Your task to perform on an android device: turn off smart reply in the gmail app Image 0: 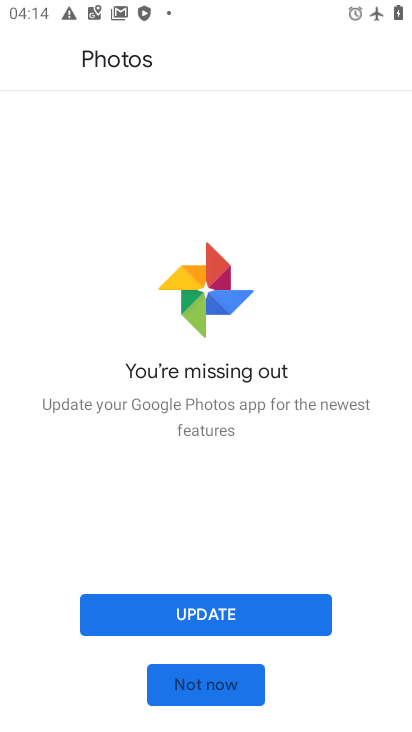
Step 0: press home button
Your task to perform on an android device: turn off smart reply in the gmail app Image 1: 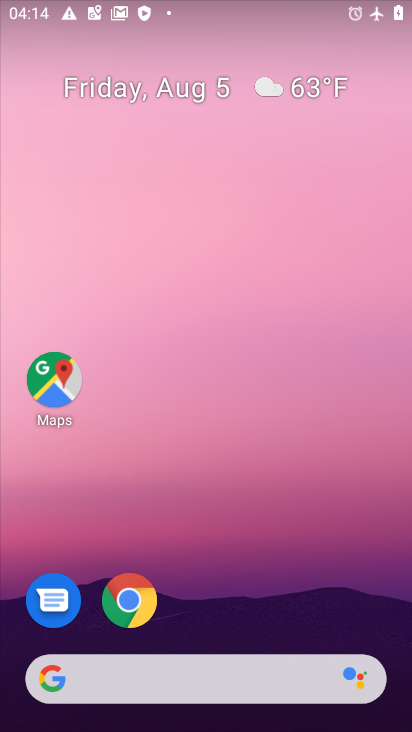
Step 1: drag from (196, 685) to (163, 165)
Your task to perform on an android device: turn off smart reply in the gmail app Image 2: 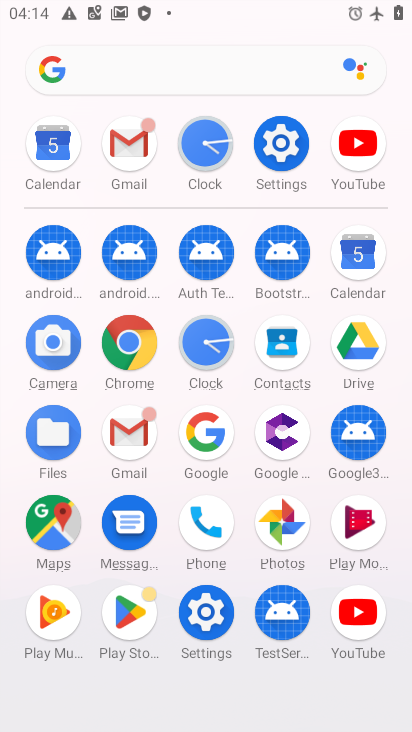
Step 2: click (126, 145)
Your task to perform on an android device: turn off smart reply in the gmail app Image 3: 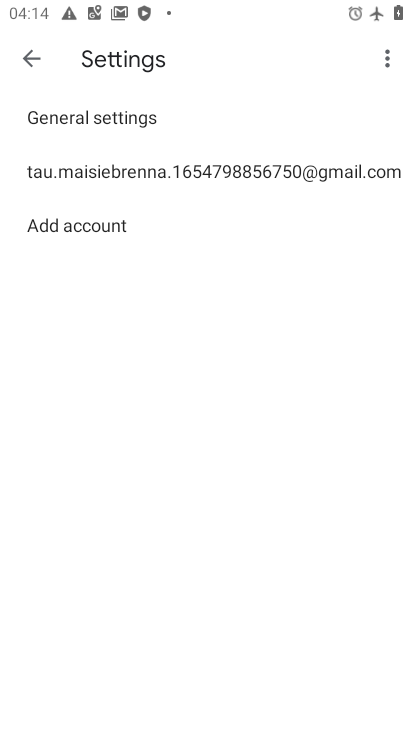
Step 3: click (132, 171)
Your task to perform on an android device: turn off smart reply in the gmail app Image 4: 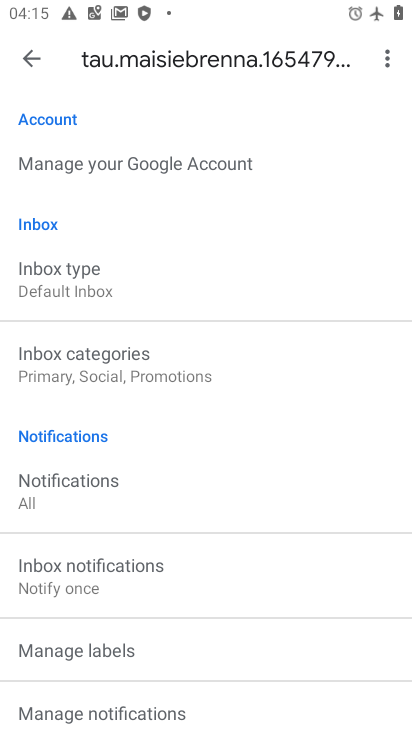
Step 4: drag from (161, 548) to (152, 248)
Your task to perform on an android device: turn off smart reply in the gmail app Image 5: 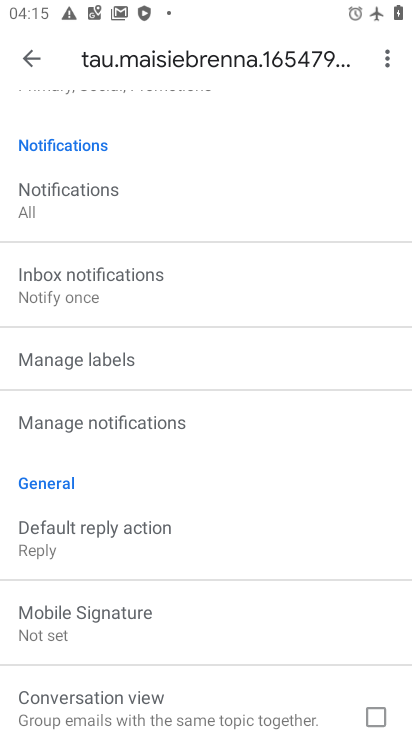
Step 5: drag from (136, 665) to (156, 508)
Your task to perform on an android device: turn off smart reply in the gmail app Image 6: 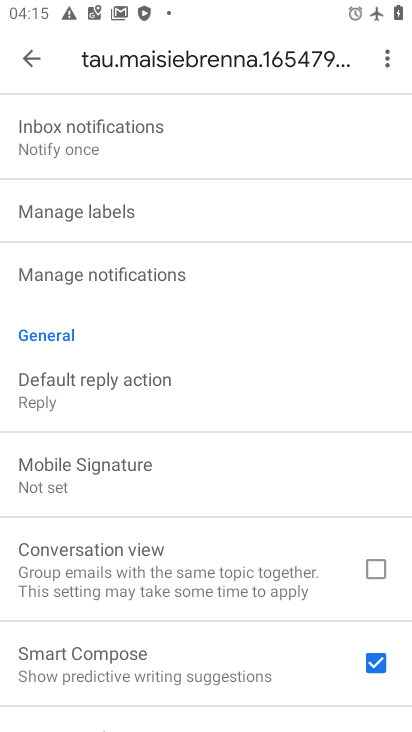
Step 6: drag from (183, 640) to (185, 472)
Your task to perform on an android device: turn off smart reply in the gmail app Image 7: 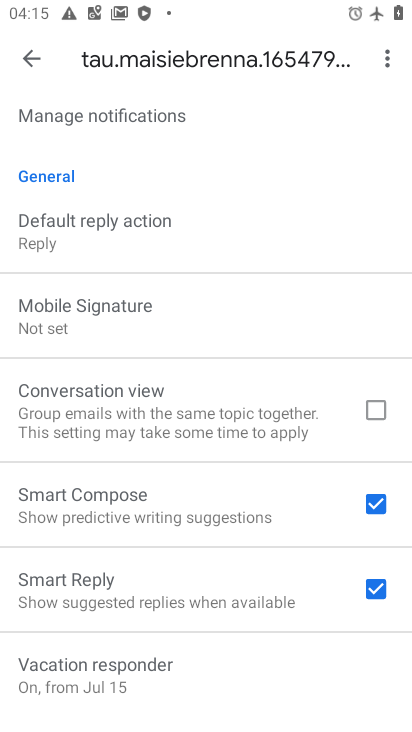
Step 7: click (376, 590)
Your task to perform on an android device: turn off smart reply in the gmail app Image 8: 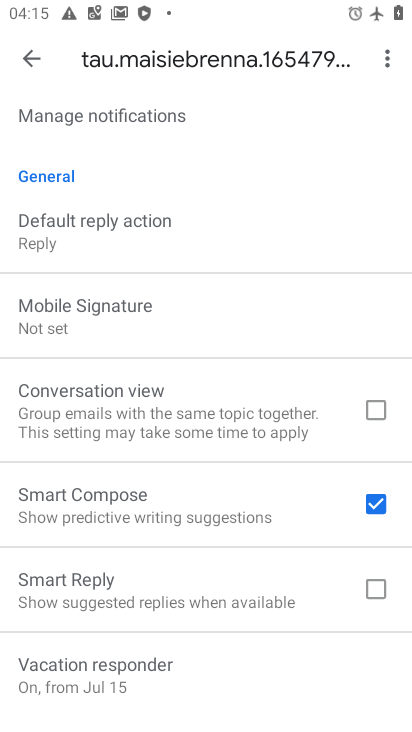
Step 8: task complete